Your task to perform on an android device: Open ESPN.com Image 0: 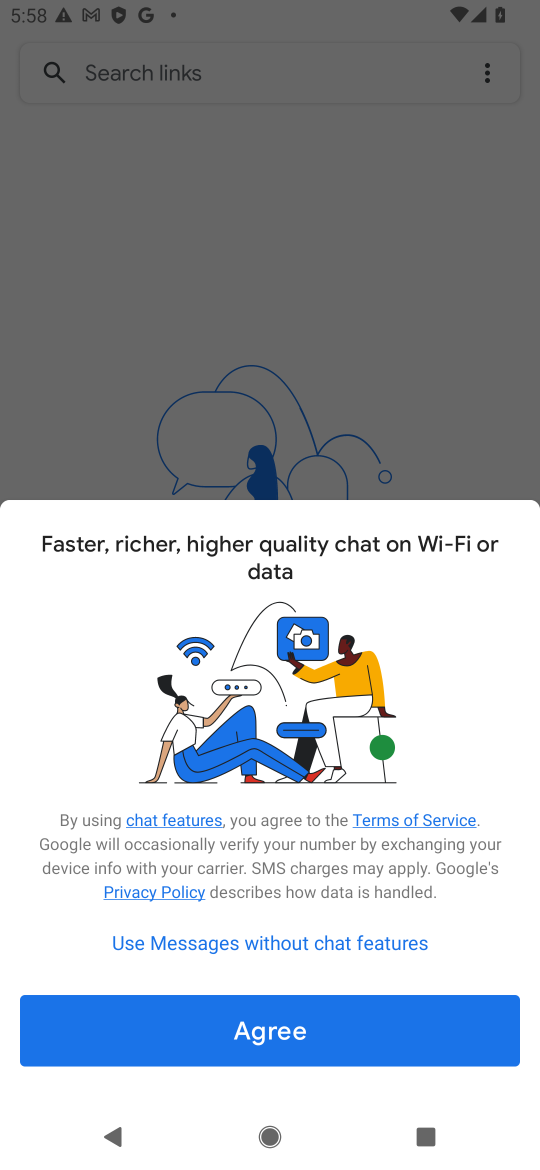
Step 0: press back button
Your task to perform on an android device: Open ESPN.com Image 1: 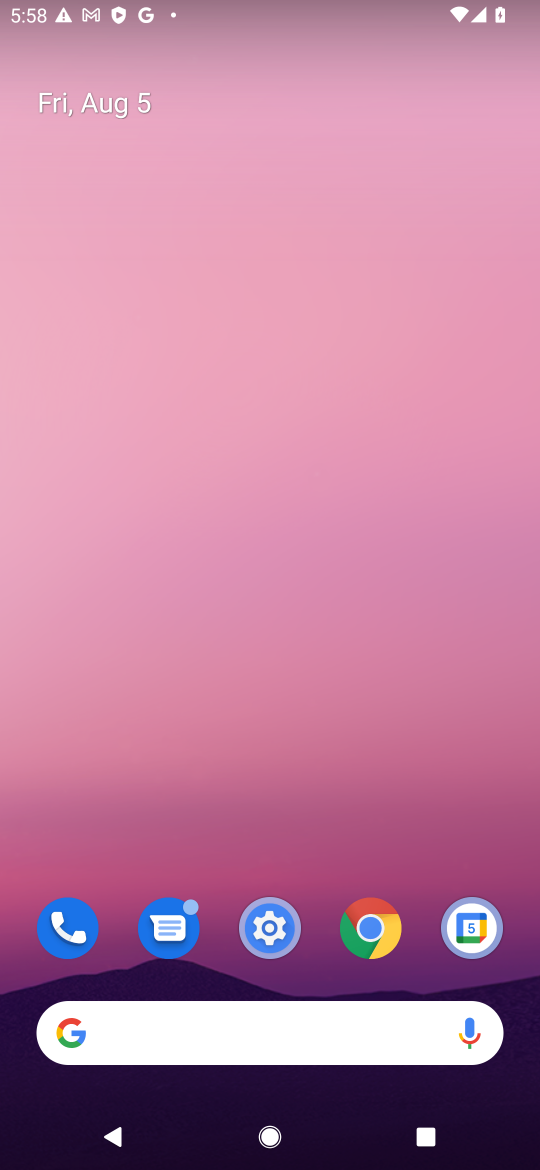
Step 1: click (376, 931)
Your task to perform on an android device: Open ESPN.com Image 2: 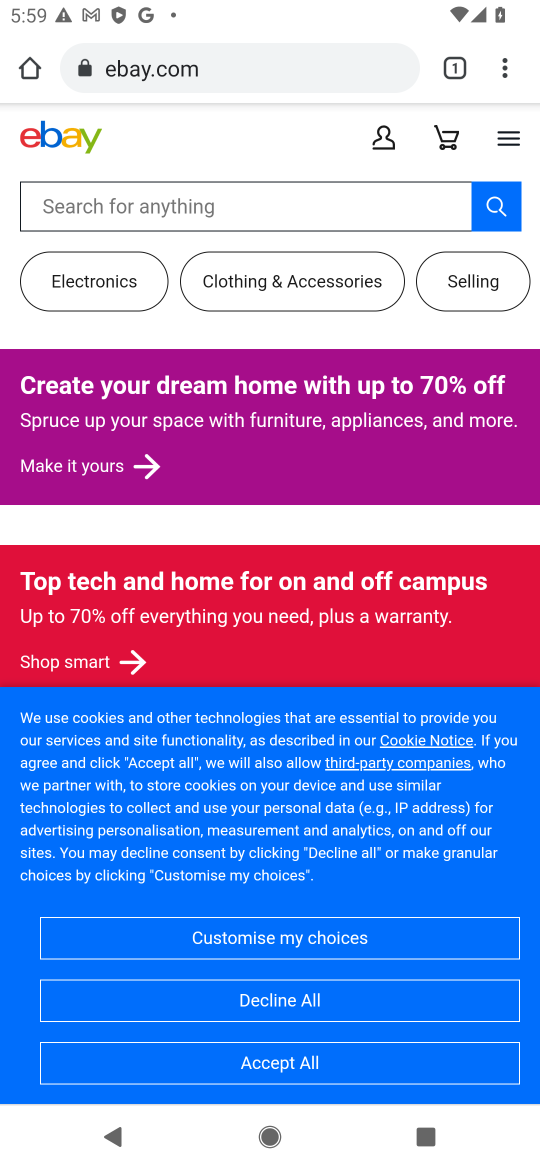
Step 2: click (449, 67)
Your task to perform on an android device: Open ESPN.com Image 3: 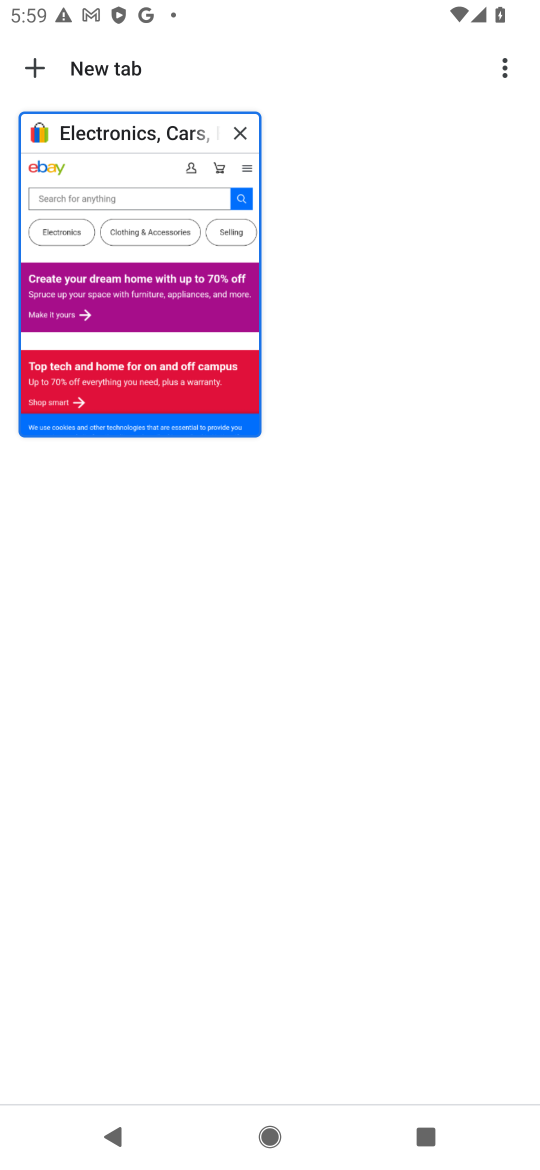
Step 3: click (38, 54)
Your task to perform on an android device: Open ESPN.com Image 4: 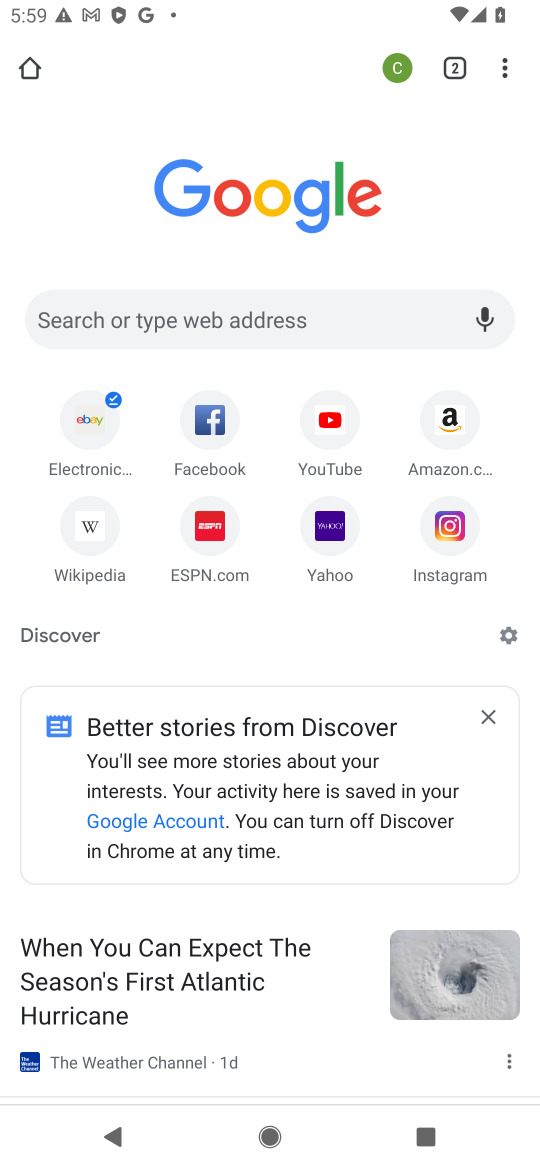
Step 4: click (192, 527)
Your task to perform on an android device: Open ESPN.com Image 5: 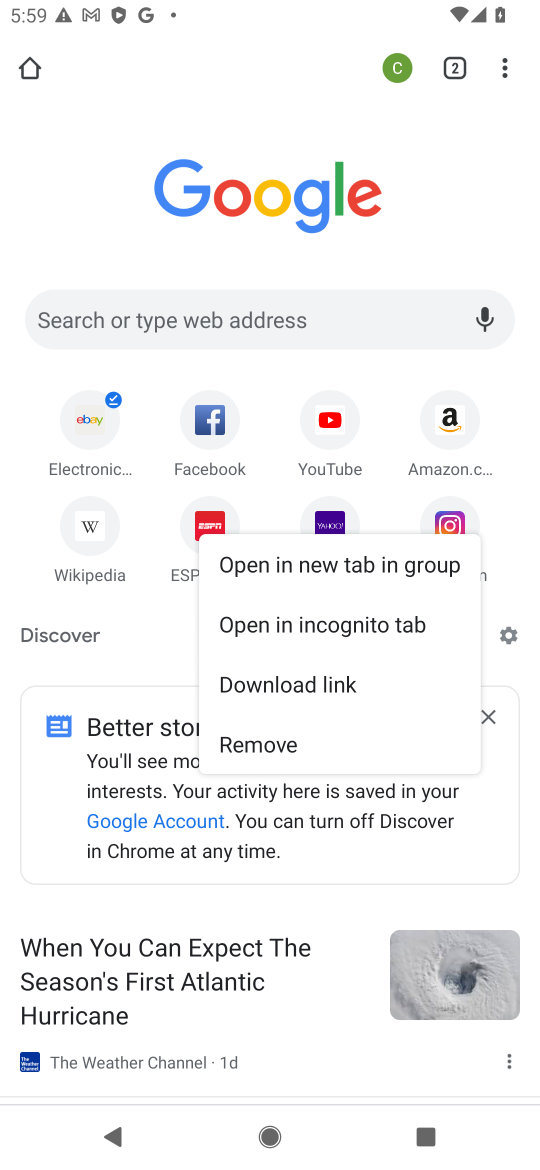
Step 5: click (188, 526)
Your task to perform on an android device: Open ESPN.com Image 6: 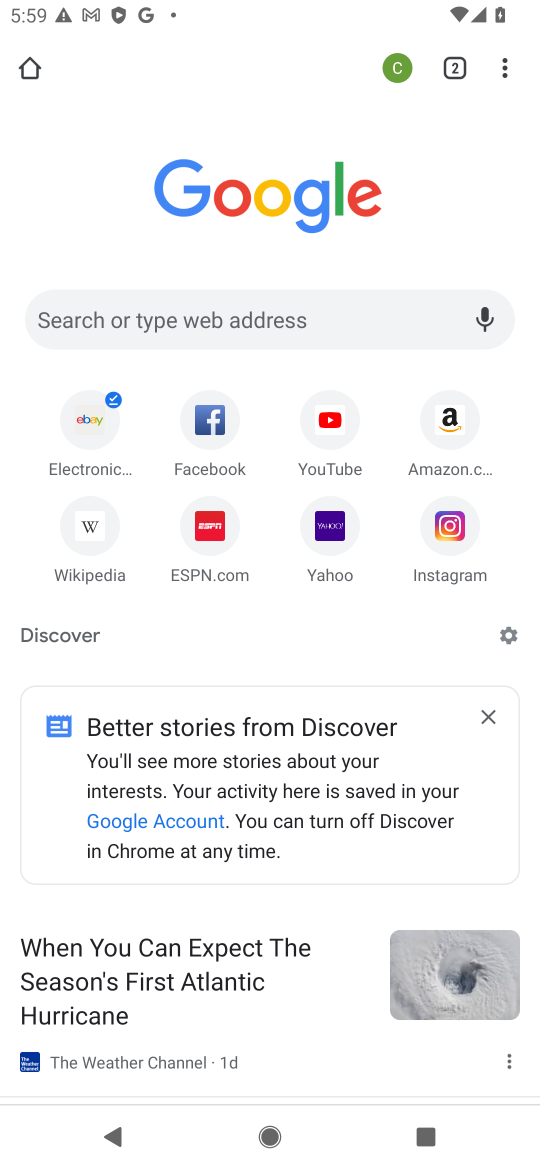
Step 6: click (190, 531)
Your task to perform on an android device: Open ESPN.com Image 7: 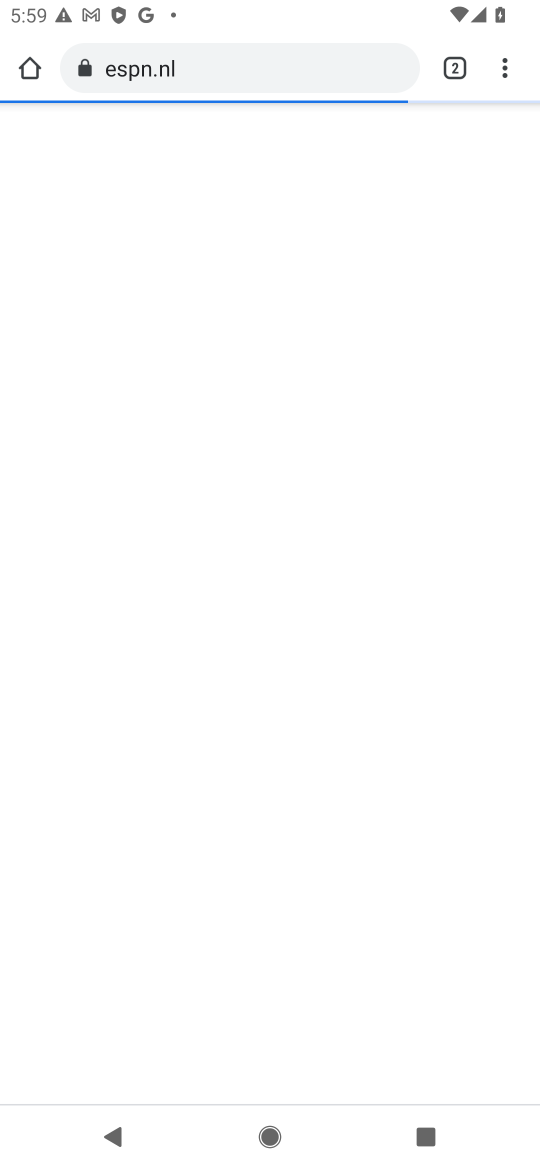
Step 7: task complete